Your task to perform on an android device: Open maps Image 0: 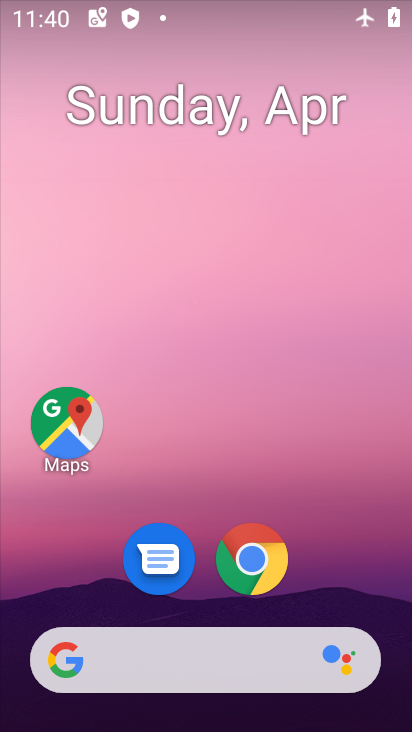
Step 0: drag from (332, 576) to (314, 61)
Your task to perform on an android device: Open maps Image 1: 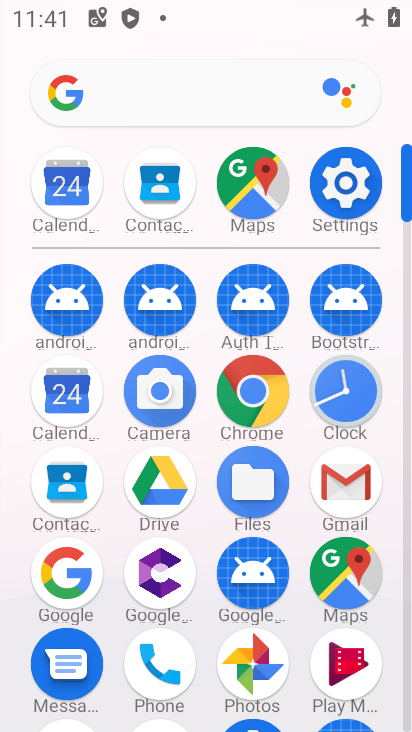
Step 1: click (235, 193)
Your task to perform on an android device: Open maps Image 2: 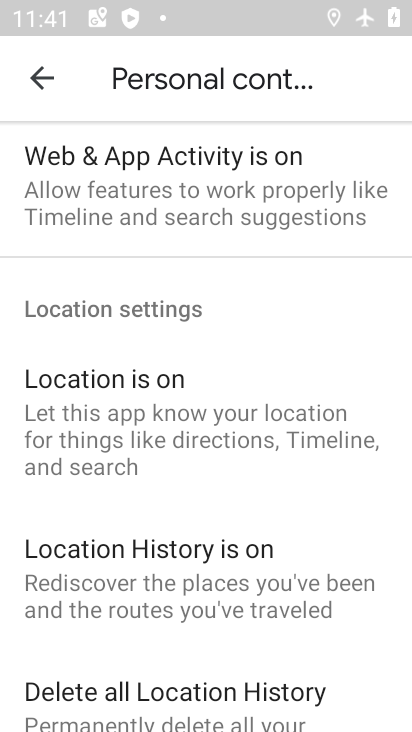
Step 2: click (29, 81)
Your task to perform on an android device: Open maps Image 3: 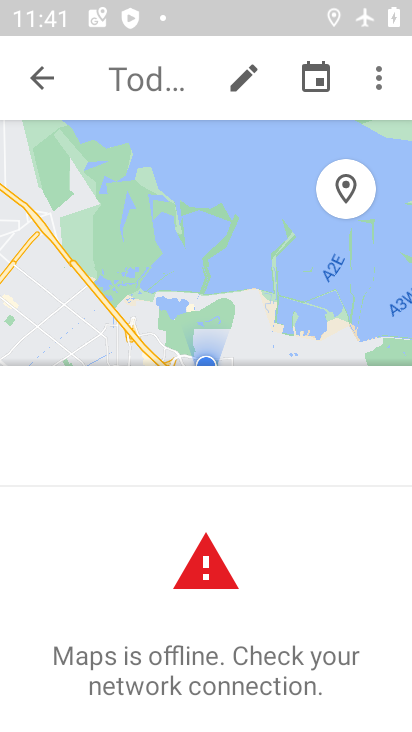
Step 3: click (29, 81)
Your task to perform on an android device: Open maps Image 4: 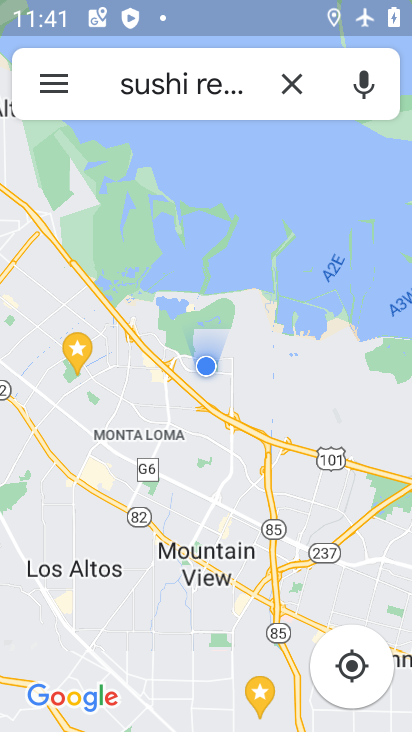
Step 4: task complete